Your task to perform on an android device: manage bookmarks in the chrome app Image 0: 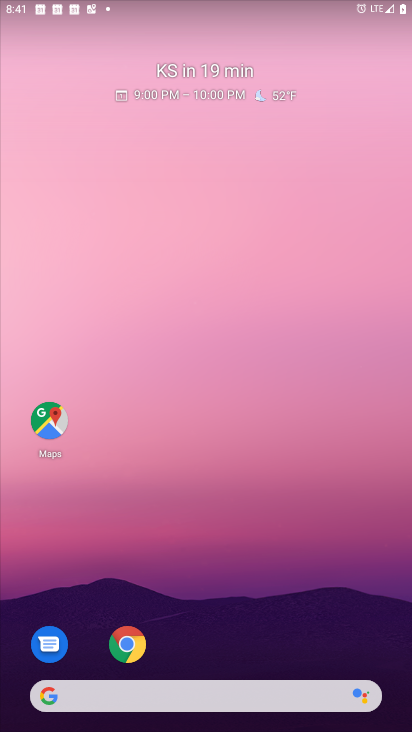
Step 0: click (125, 645)
Your task to perform on an android device: manage bookmarks in the chrome app Image 1: 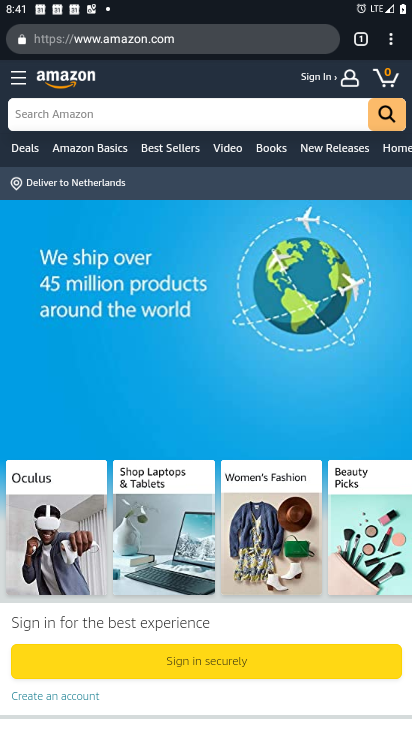
Step 1: click (390, 44)
Your task to perform on an android device: manage bookmarks in the chrome app Image 2: 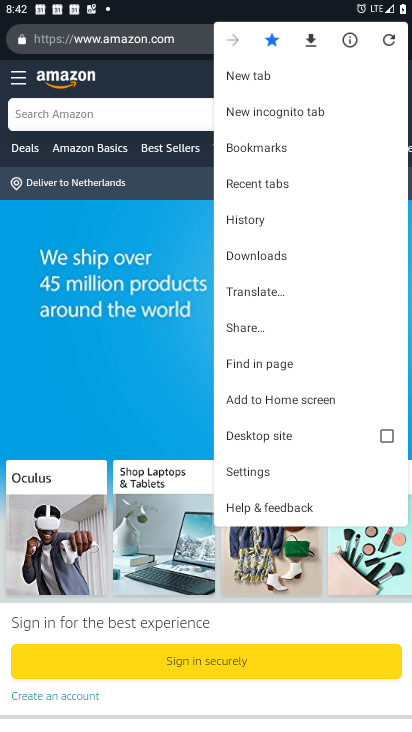
Step 2: click (247, 146)
Your task to perform on an android device: manage bookmarks in the chrome app Image 3: 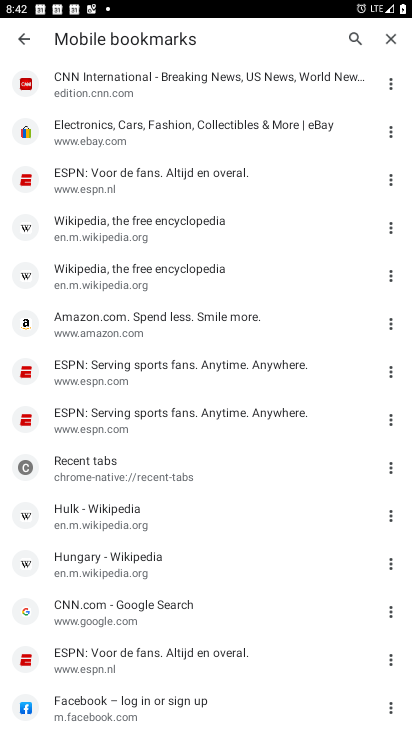
Step 3: click (83, 130)
Your task to perform on an android device: manage bookmarks in the chrome app Image 4: 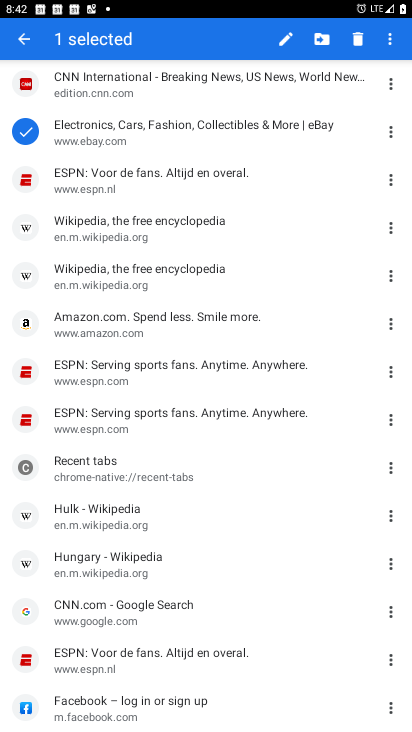
Step 4: click (319, 33)
Your task to perform on an android device: manage bookmarks in the chrome app Image 5: 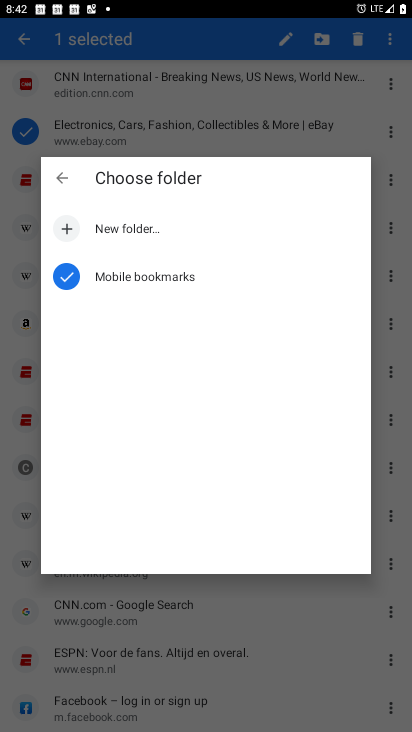
Step 5: click (66, 228)
Your task to perform on an android device: manage bookmarks in the chrome app Image 6: 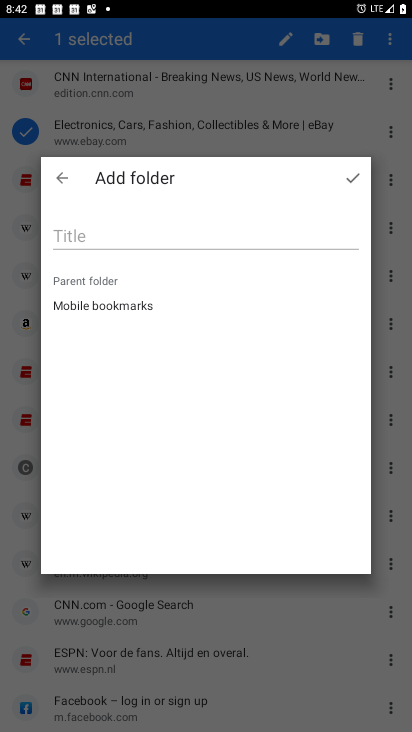
Step 6: click (109, 235)
Your task to perform on an android device: manage bookmarks in the chrome app Image 7: 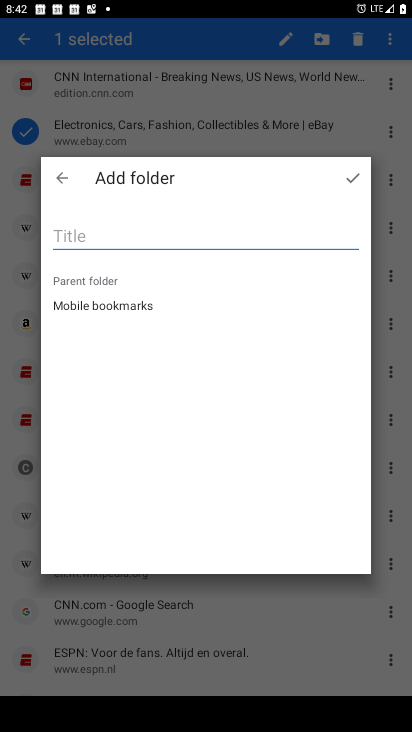
Step 7: type "gh"
Your task to perform on an android device: manage bookmarks in the chrome app Image 8: 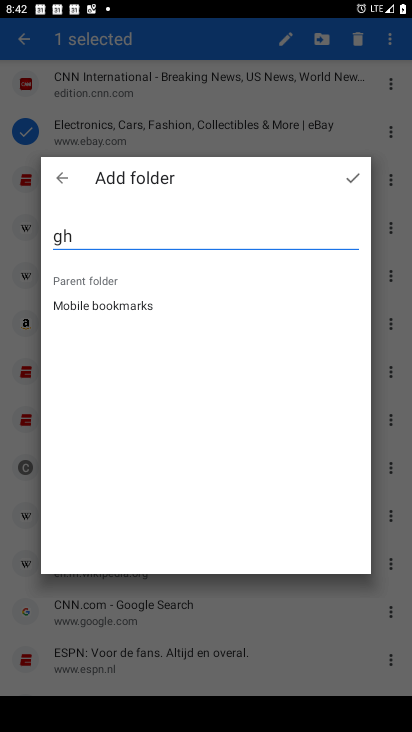
Step 8: click (352, 173)
Your task to perform on an android device: manage bookmarks in the chrome app Image 9: 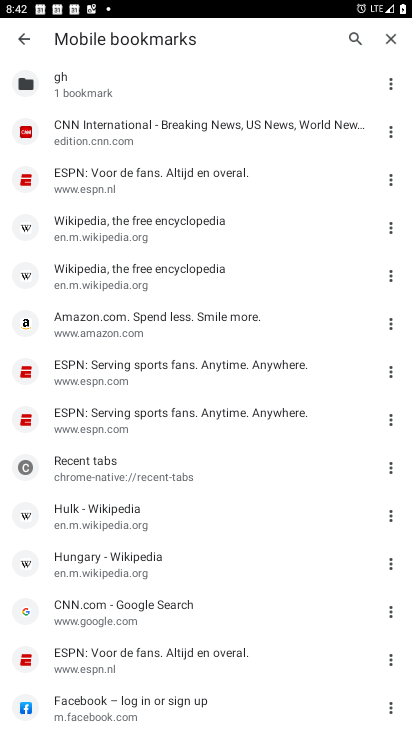
Step 9: task complete